Your task to perform on an android device: Is it going to rain this weekend? Image 0: 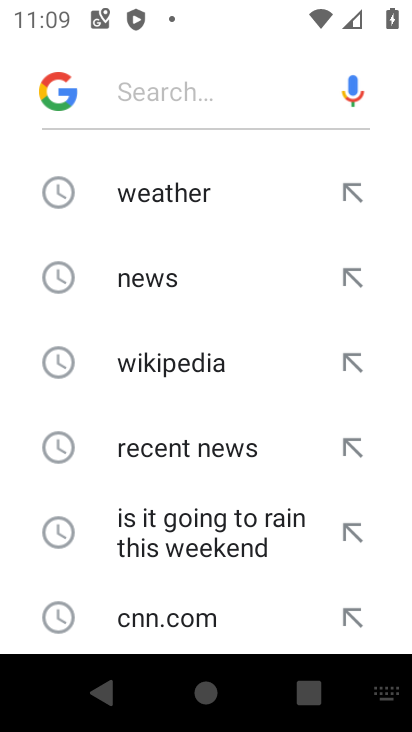
Step 0: press home button
Your task to perform on an android device: Is it going to rain this weekend? Image 1: 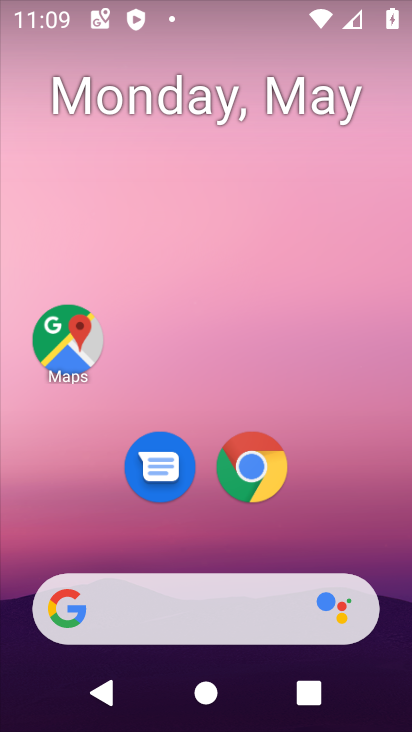
Step 1: click (208, 601)
Your task to perform on an android device: Is it going to rain this weekend? Image 2: 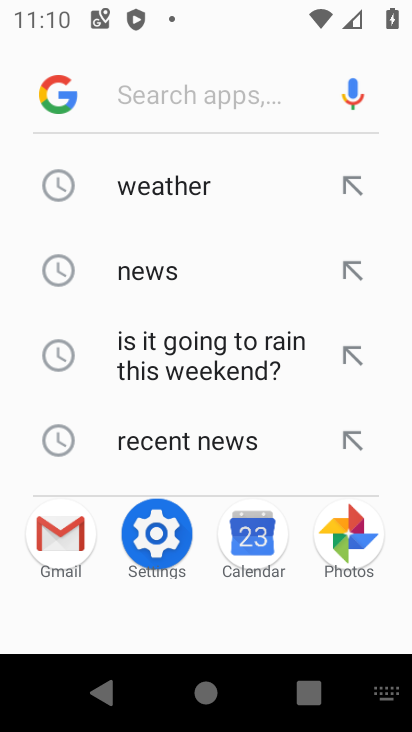
Step 2: type "is it going to rain this weekend"
Your task to perform on an android device: Is it going to rain this weekend? Image 3: 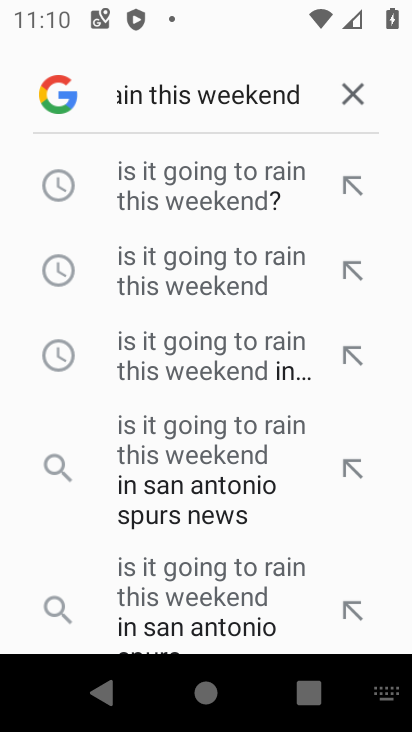
Step 3: click (176, 177)
Your task to perform on an android device: Is it going to rain this weekend? Image 4: 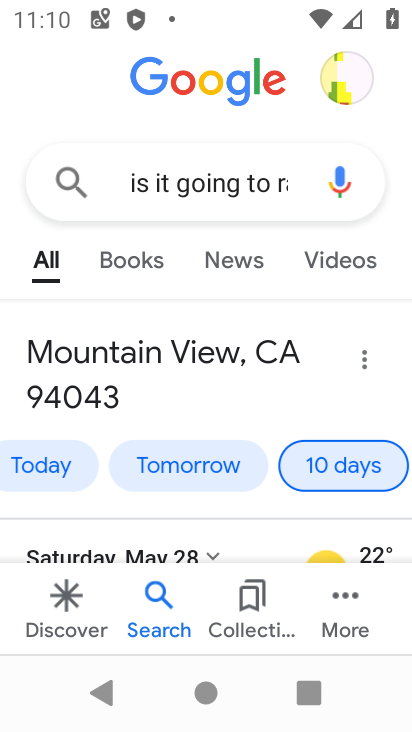
Step 4: task complete